Your task to perform on an android device: delete browsing data in the chrome app Image 0: 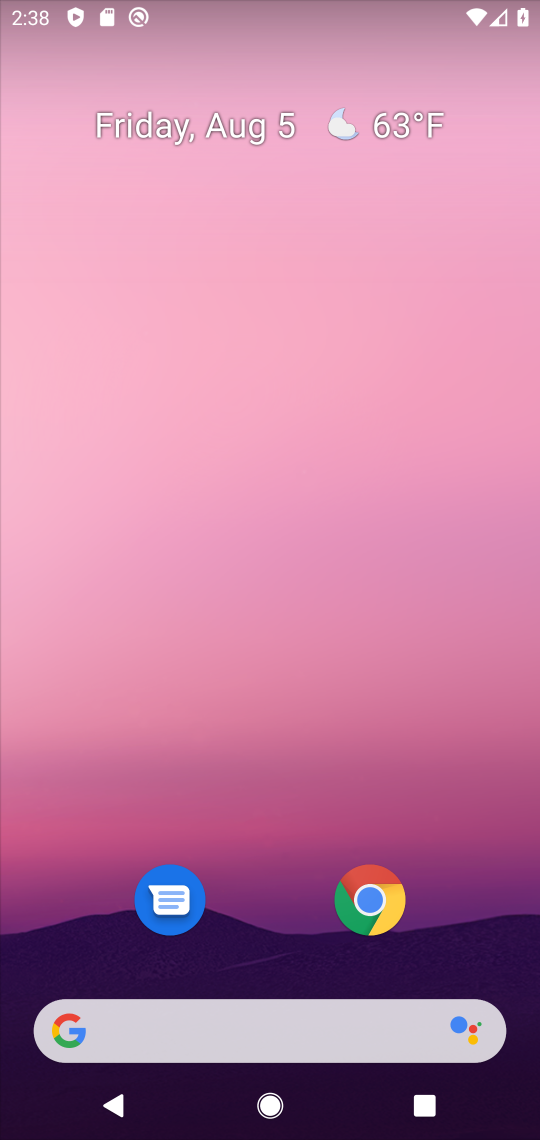
Step 0: click (367, 860)
Your task to perform on an android device: delete browsing data in the chrome app Image 1: 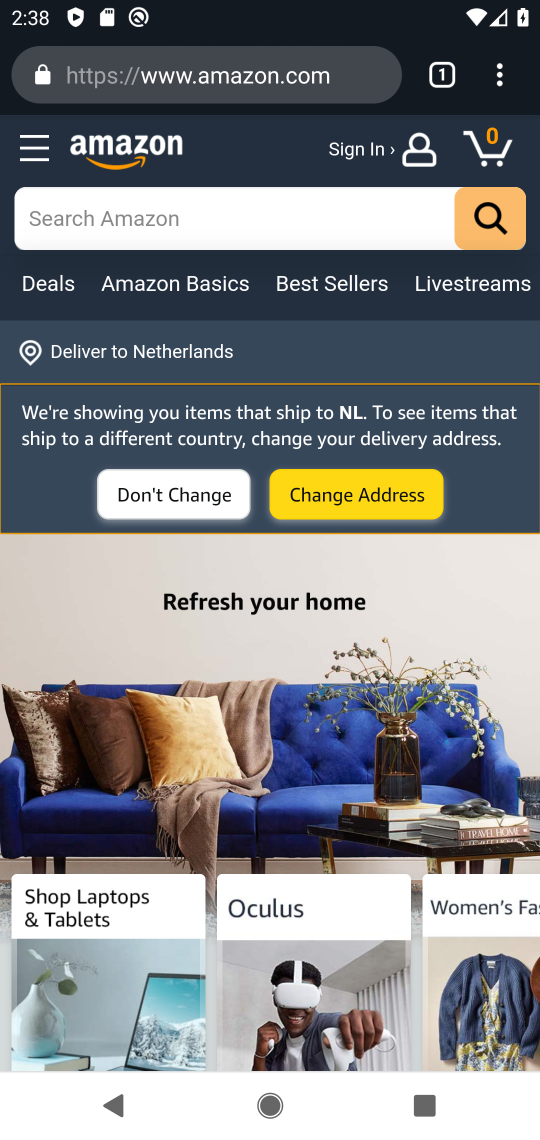
Step 1: click (485, 61)
Your task to perform on an android device: delete browsing data in the chrome app Image 2: 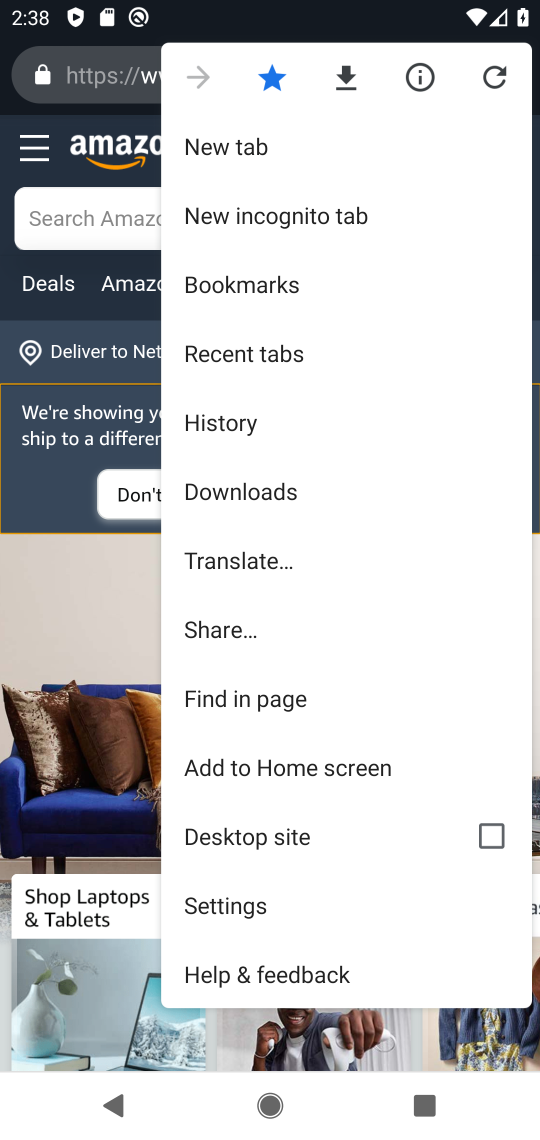
Step 2: click (240, 415)
Your task to perform on an android device: delete browsing data in the chrome app Image 3: 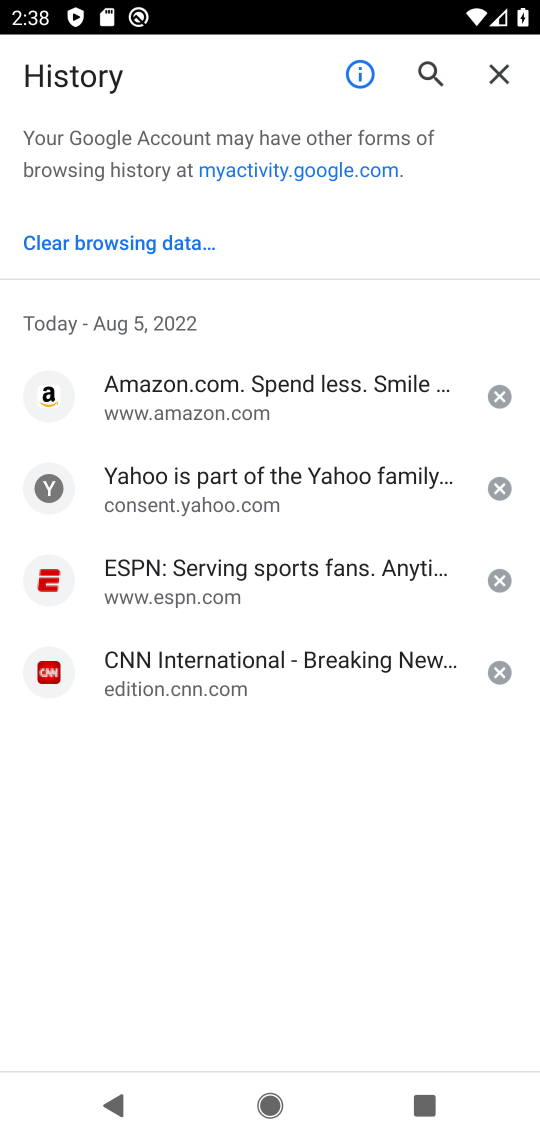
Step 3: task complete